Your task to perform on an android device: search for starred emails in the gmail app Image 0: 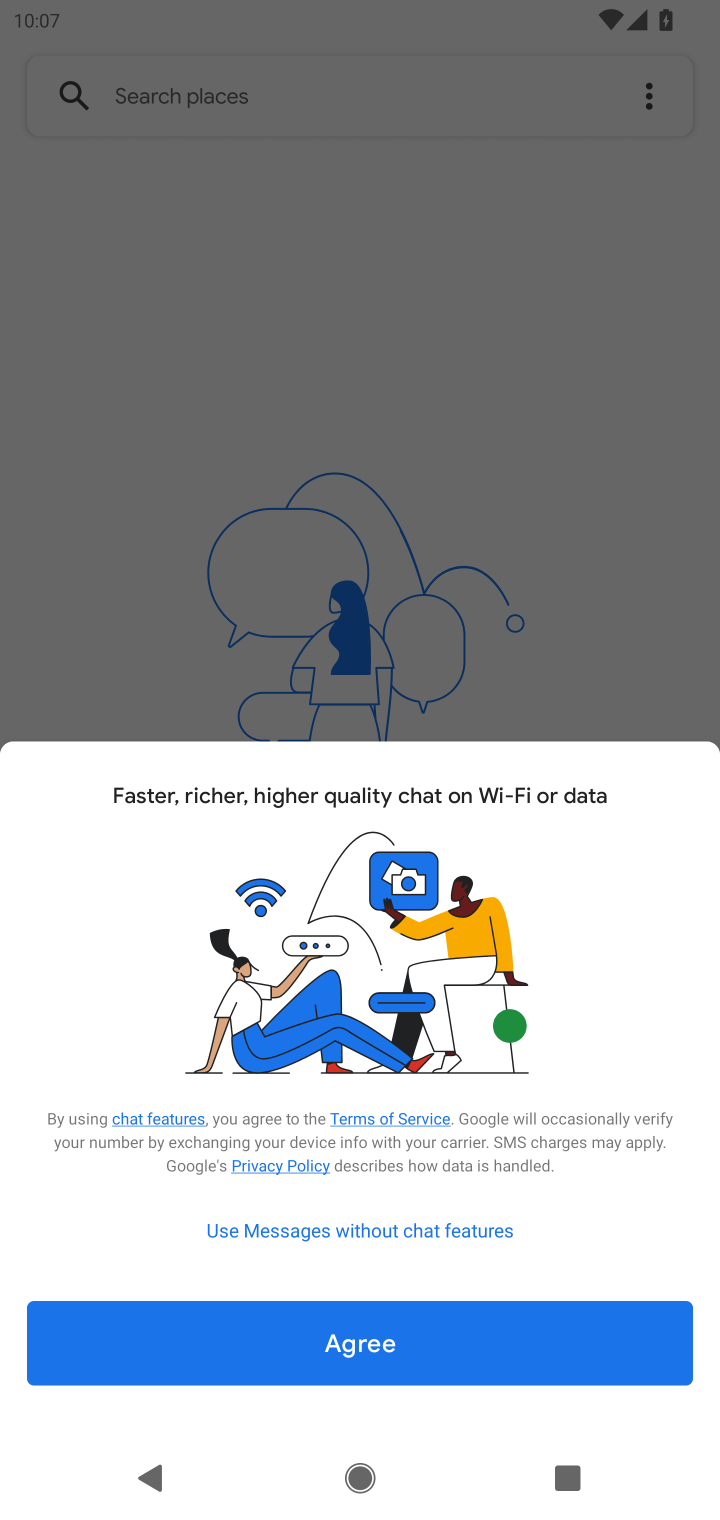
Step 0: press back button
Your task to perform on an android device: search for starred emails in the gmail app Image 1: 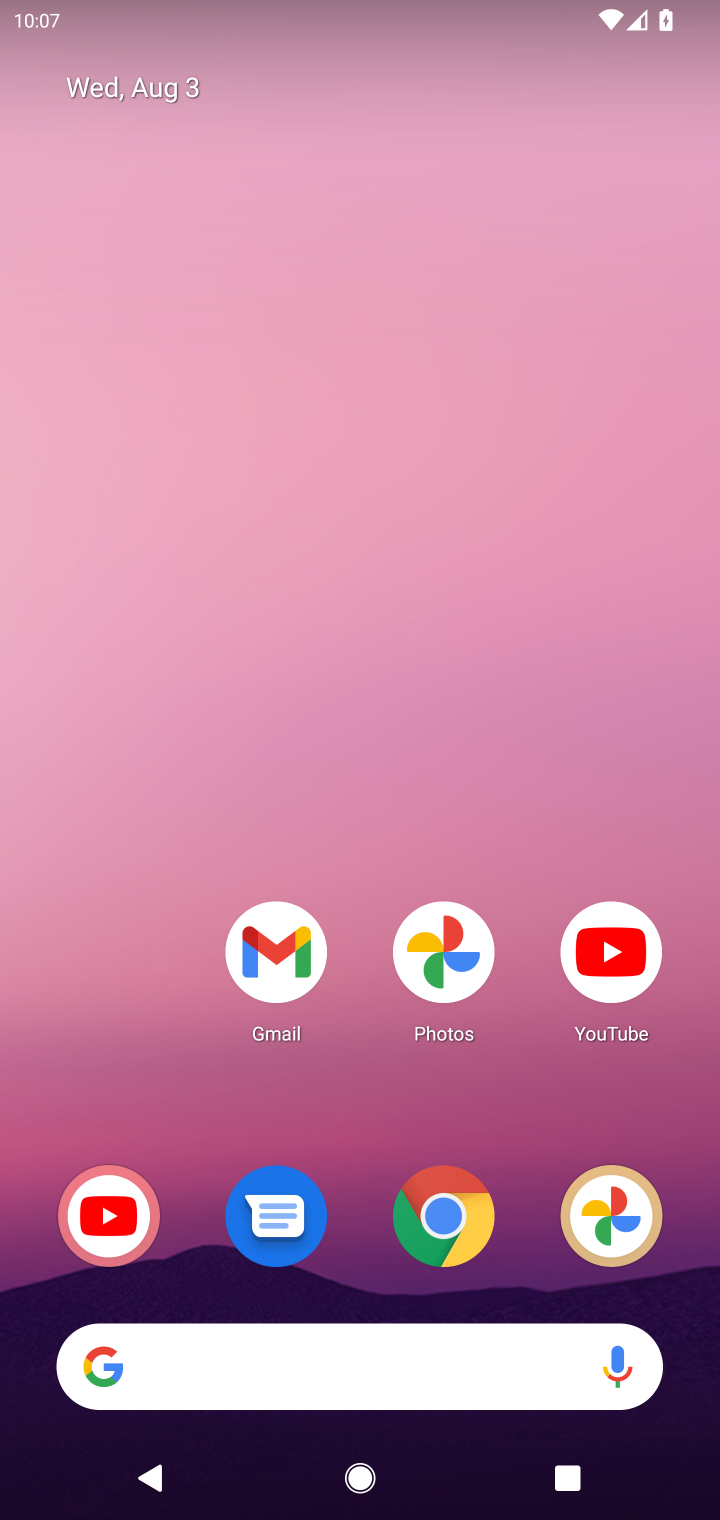
Step 1: click (258, 912)
Your task to perform on an android device: search for starred emails in the gmail app Image 2: 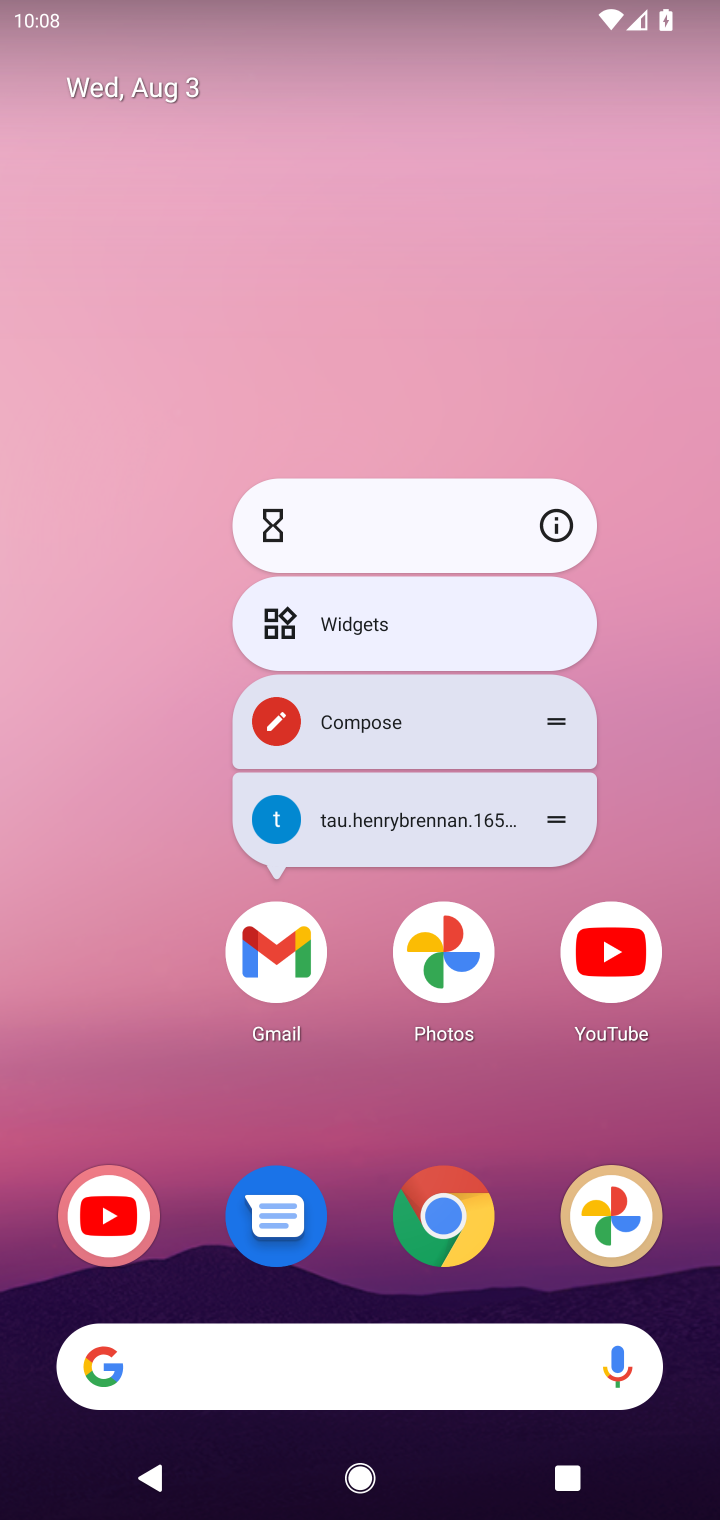
Step 2: click (267, 969)
Your task to perform on an android device: search for starred emails in the gmail app Image 3: 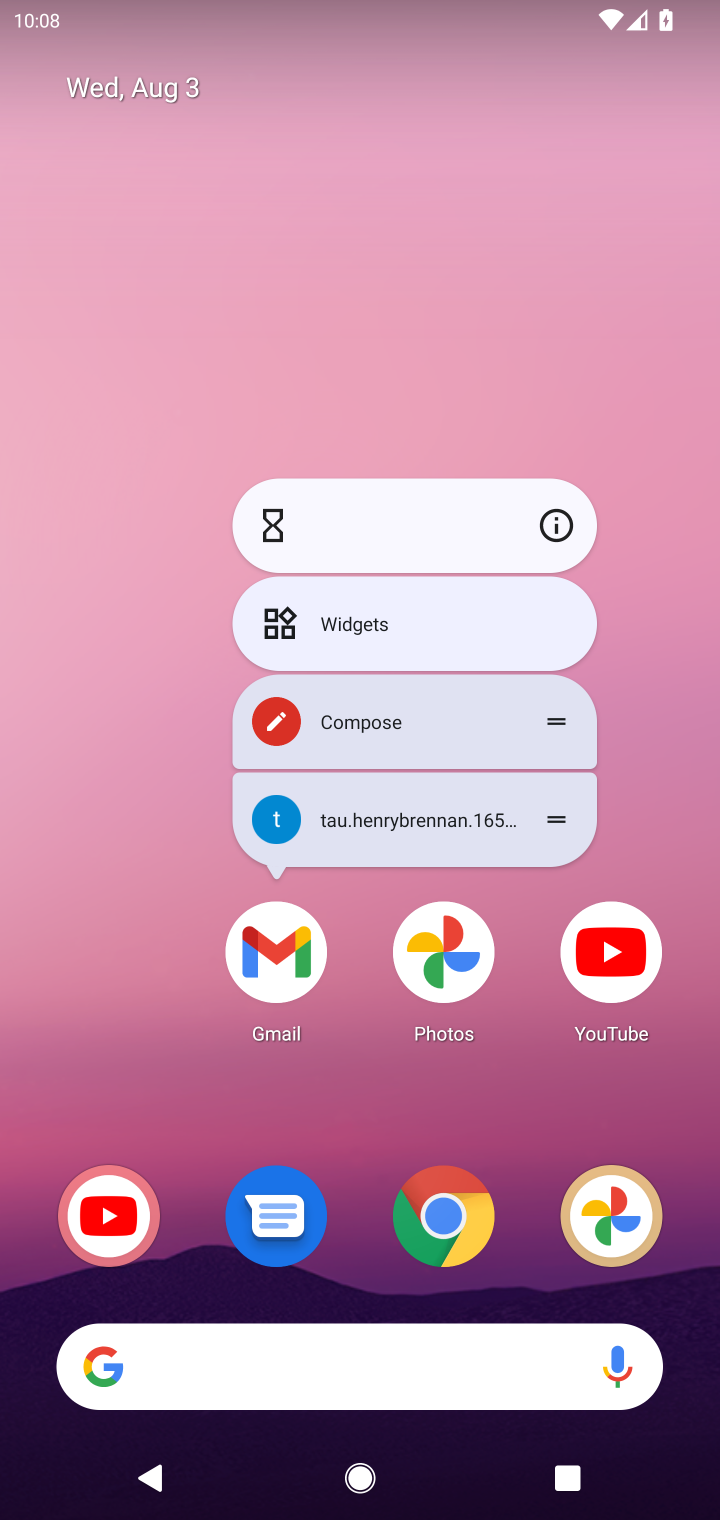
Step 3: click (269, 971)
Your task to perform on an android device: search for starred emails in the gmail app Image 4: 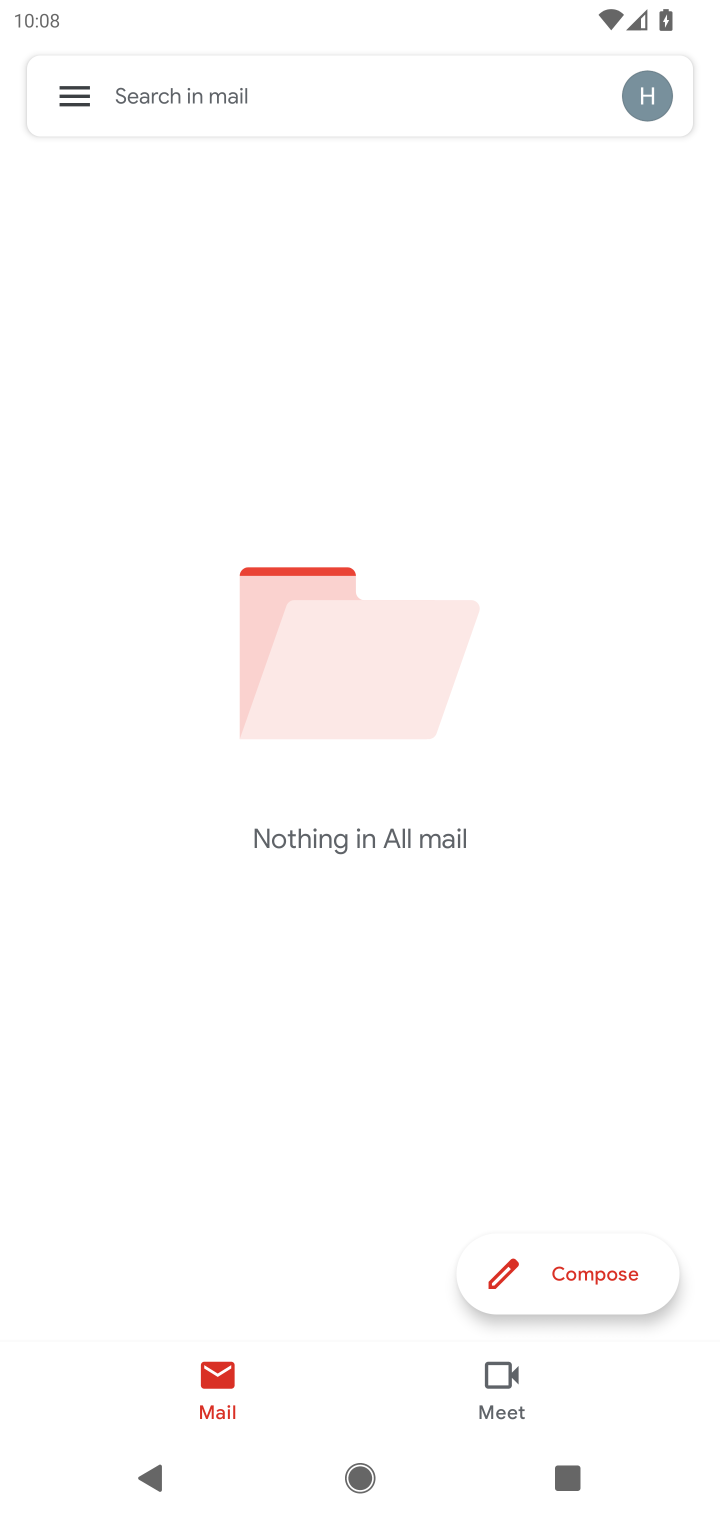
Step 4: click (79, 92)
Your task to perform on an android device: search for starred emails in the gmail app Image 5: 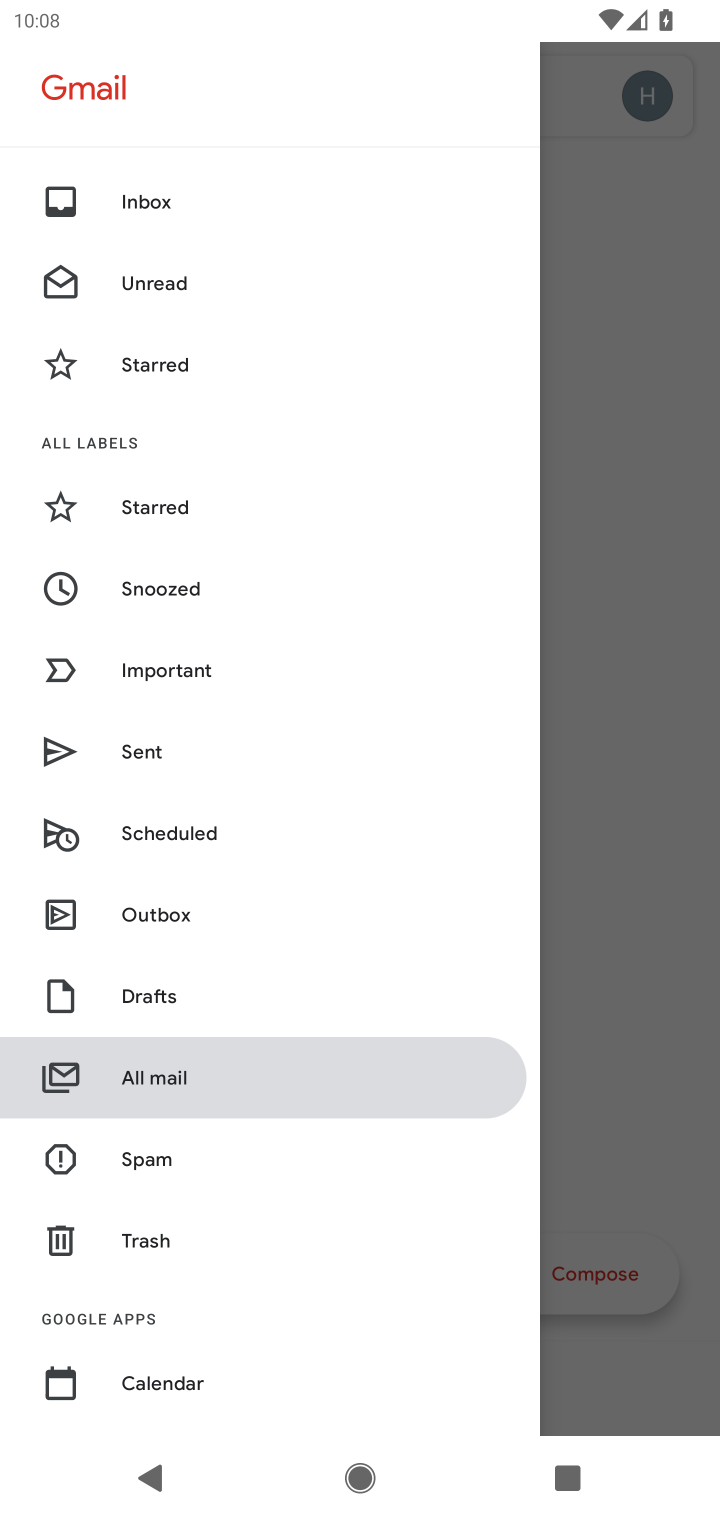
Step 5: click (160, 494)
Your task to perform on an android device: search for starred emails in the gmail app Image 6: 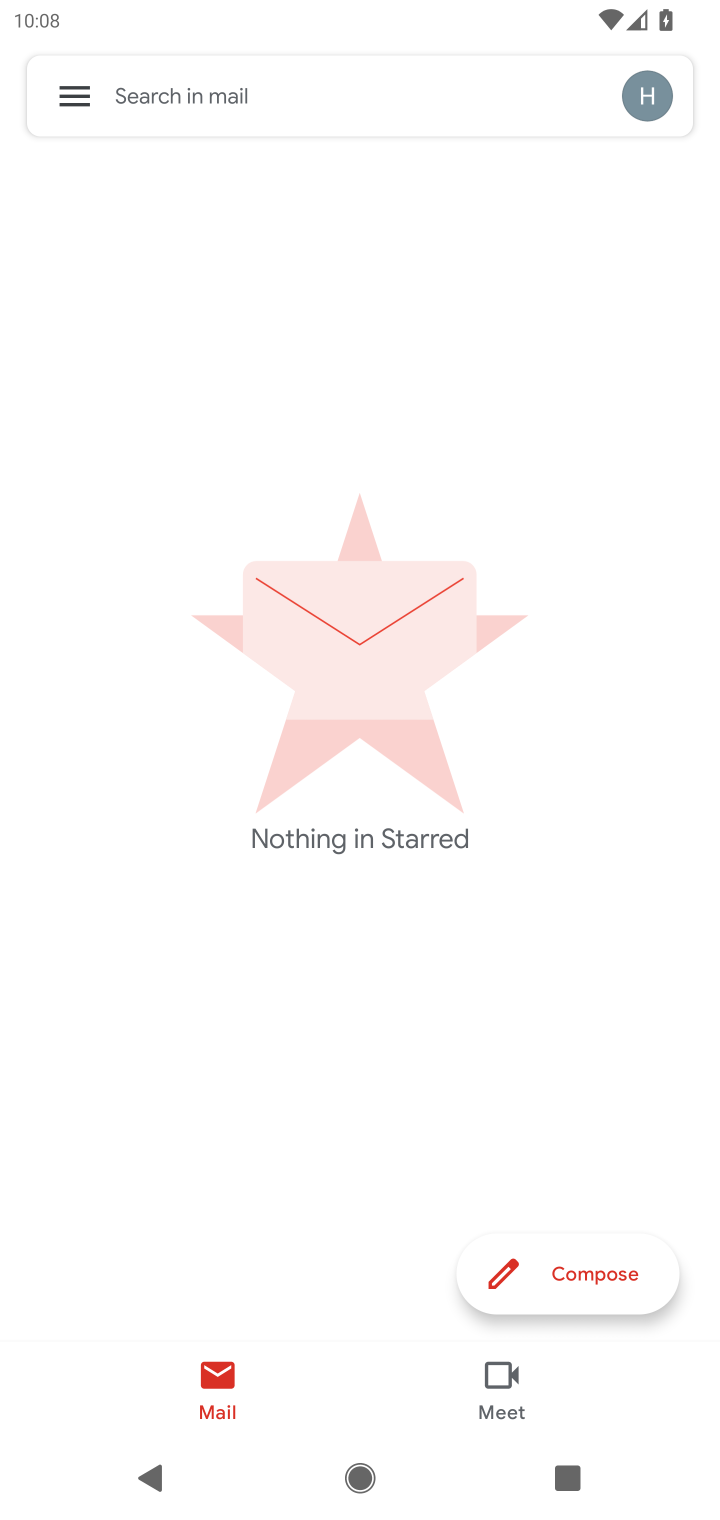
Step 6: task complete